Your task to perform on an android device: change the clock style Image 0: 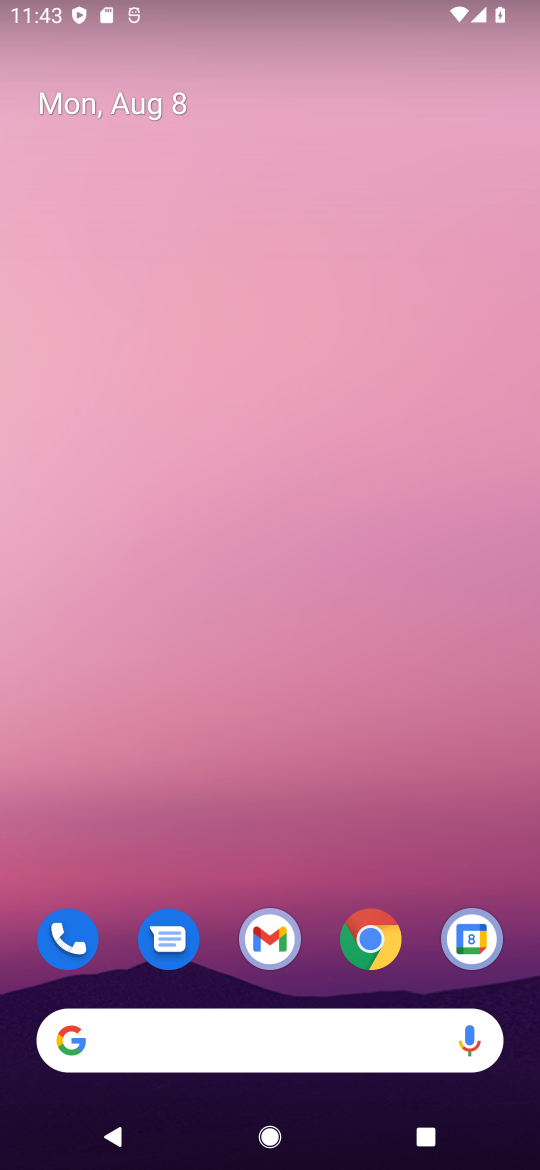
Step 0: drag from (292, 1054) to (331, 247)
Your task to perform on an android device: change the clock style Image 1: 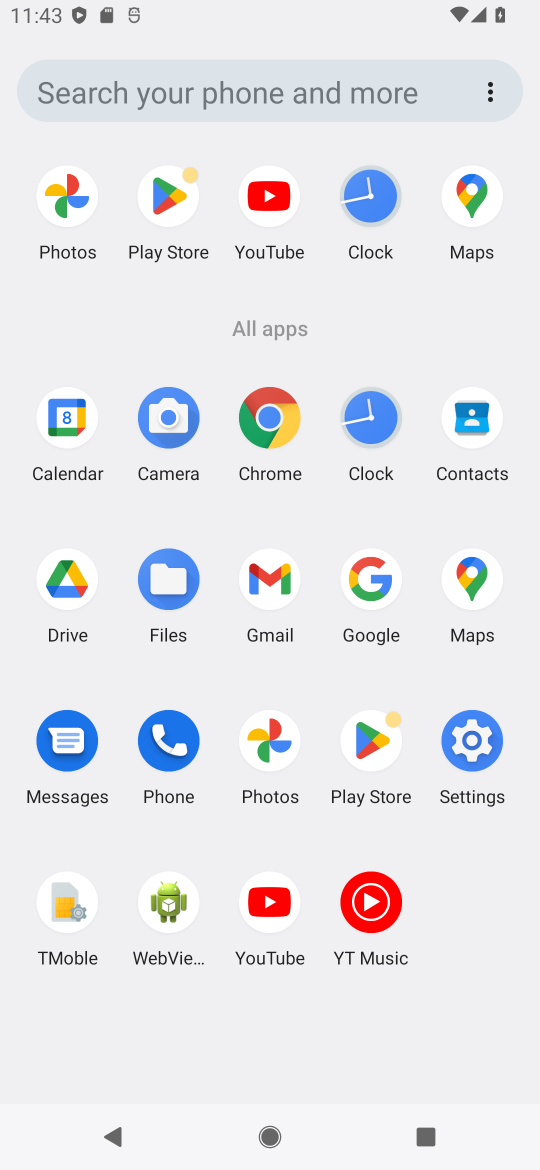
Step 1: click (373, 419)
Your task to perform on an android device: change the clock style Image 2: 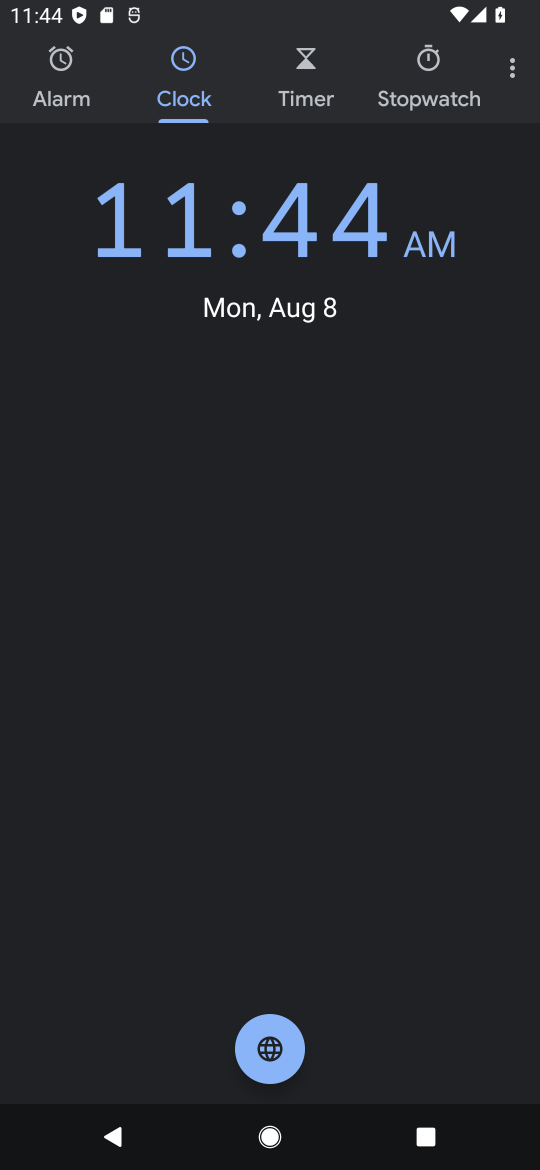
Step 2: click (515, 67)
Your task to perform on an android device: change the clock style Image 3: 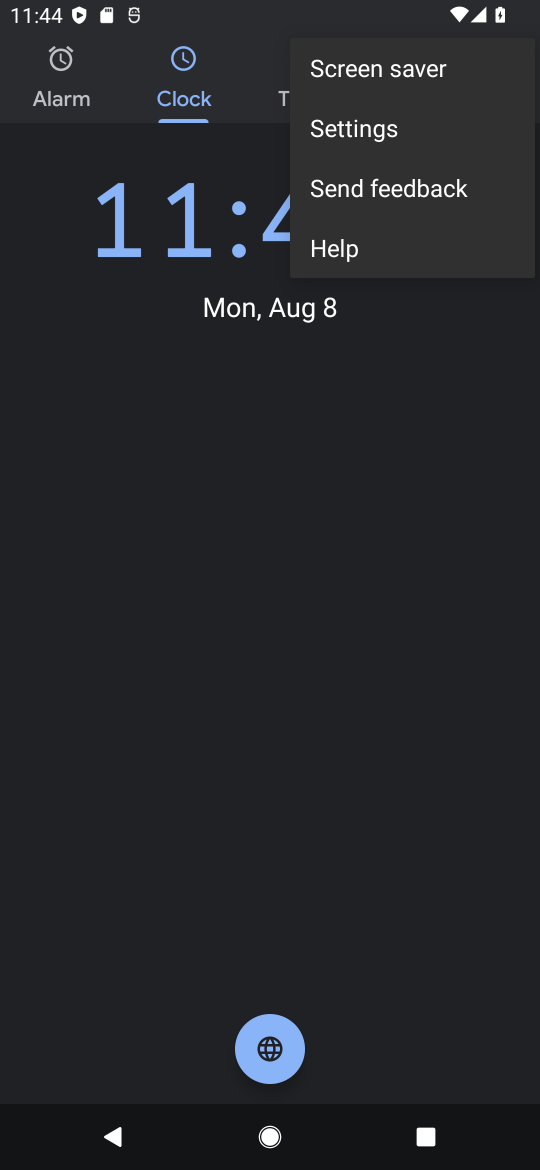
Step 3: click (400, 143)
Your task to perform on an android device: change the clock style Image 4: 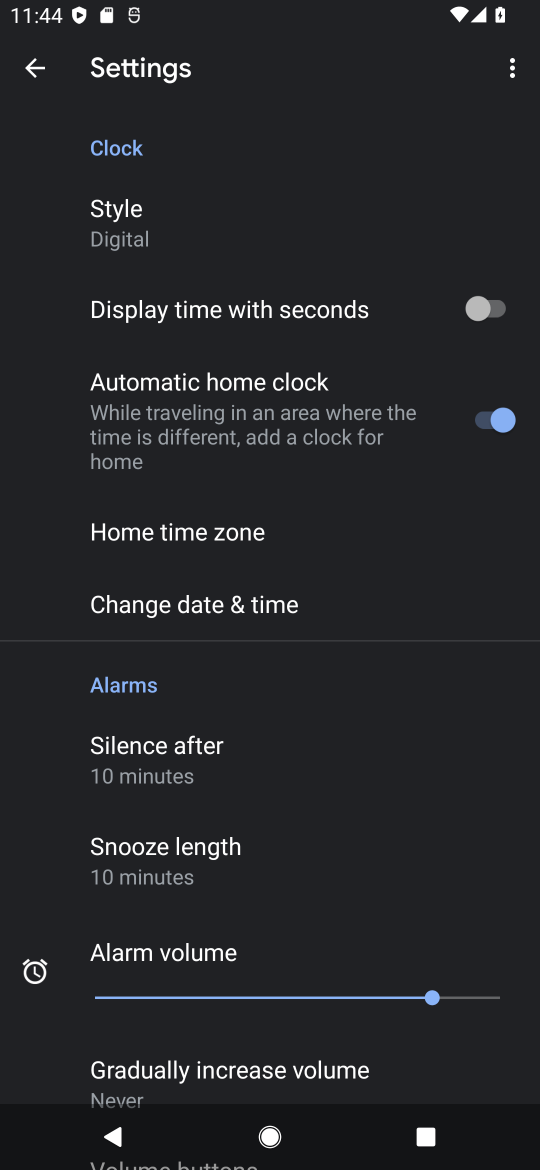
Step 4: click (148, 233)
Your task to perform on an android device: change the clock style Image 5: 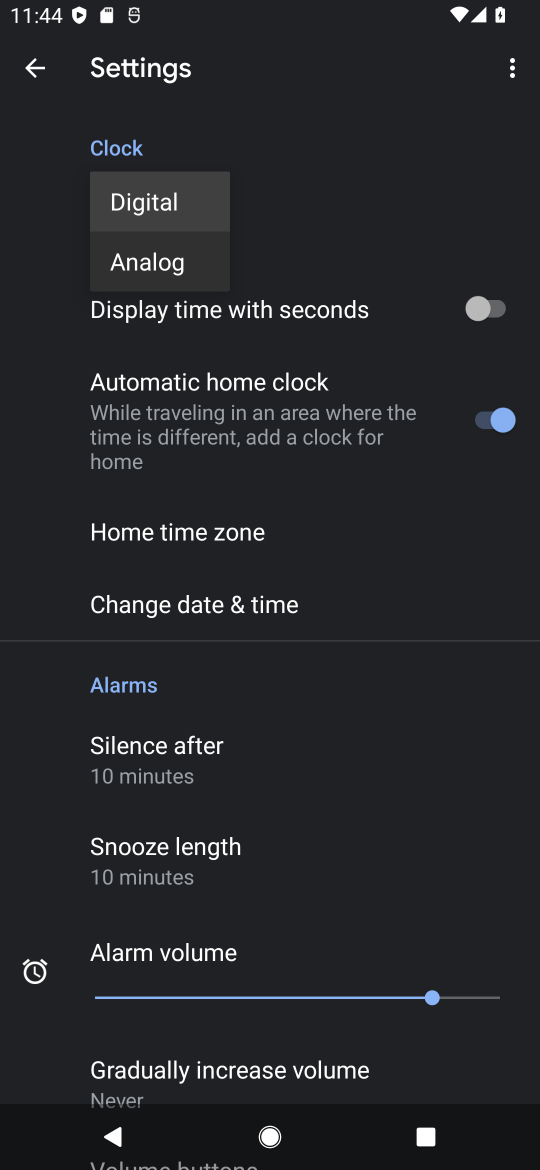
Step 5: click (155, 262)
Your task to perform on an android device: change the clock style Image 6: 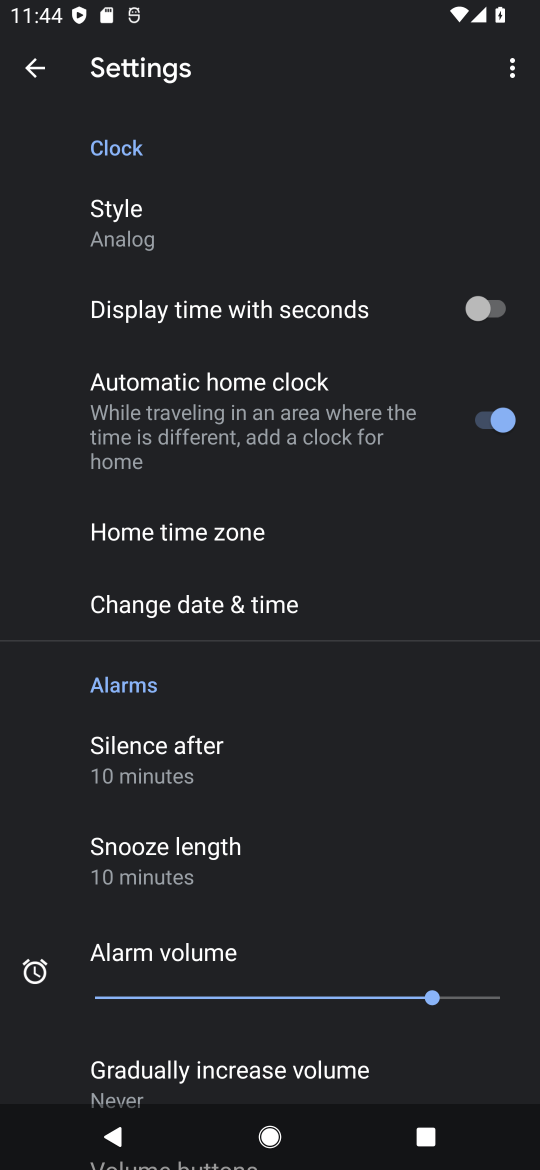
Step 6: task complete